Your task to perform on an android device: choose inbox layout in the gmail app Image 0: 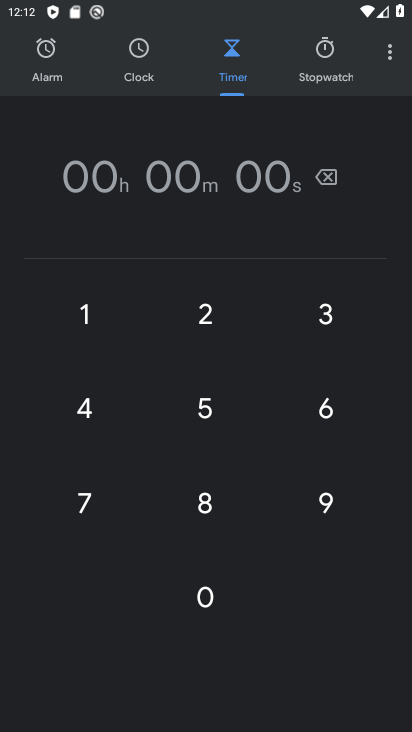
Step 0: press home button
Your task to perform on an android device: choose inbox layout in the gmail app Image 1: 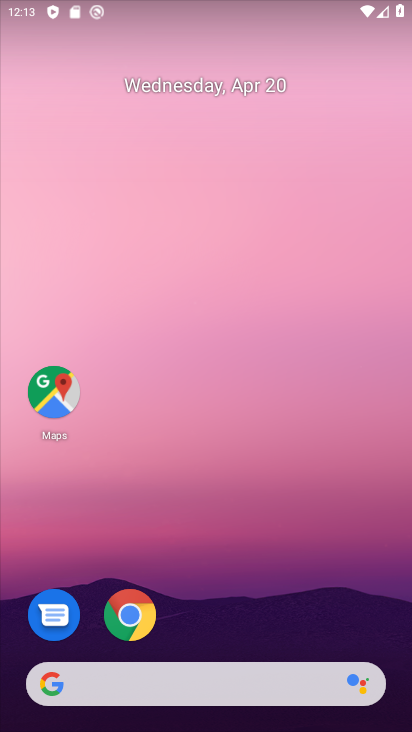
Step 1: drag from (235, 315) to (241, 84)
Your task to perform on an android device: choose inbox layout in the gmail app Image 2: 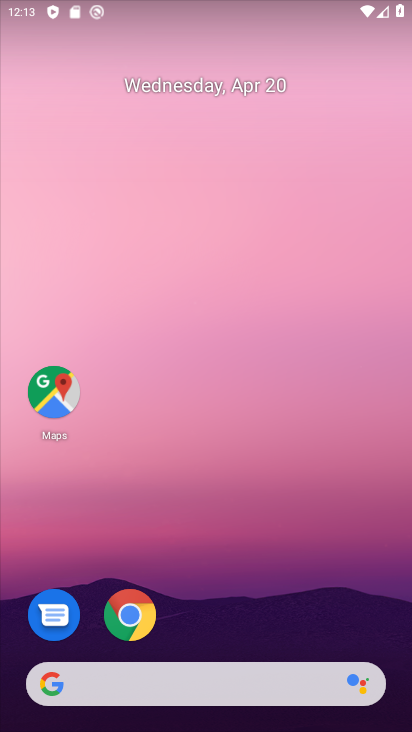
Step 2: drag from (215, 564) to (213, 61)
Your task to perform on an android device: choose inbox layout in the gmail app Image 3: 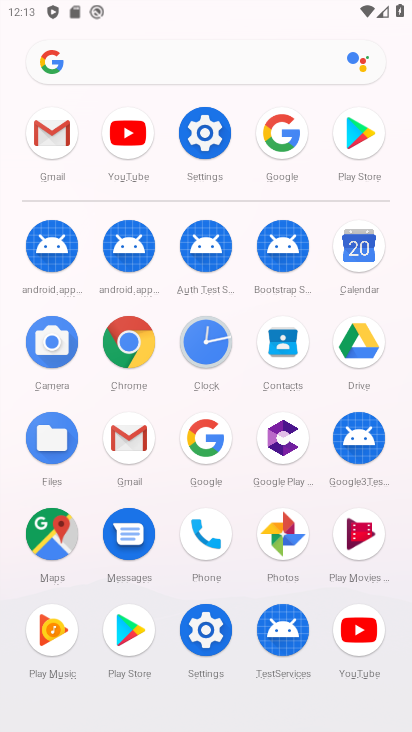
Step 3: click (56, 126)
Your task to perform on an android device: choose inbox layout in the gmail app Image 4: 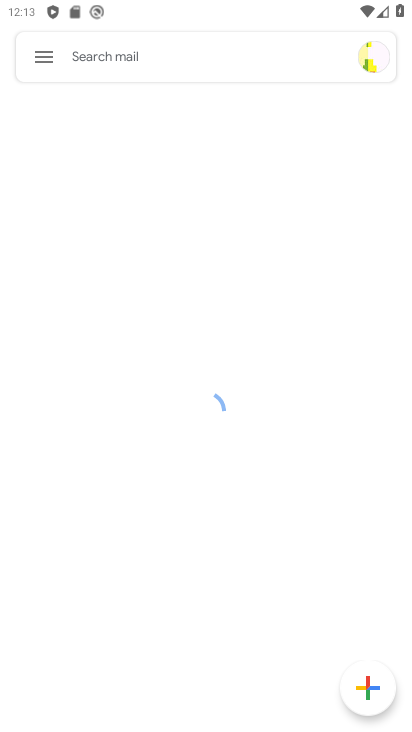
Step 4: click (41, 59)
Your task to perform on an android device: choose inbox layout in the gmail app Image 5: 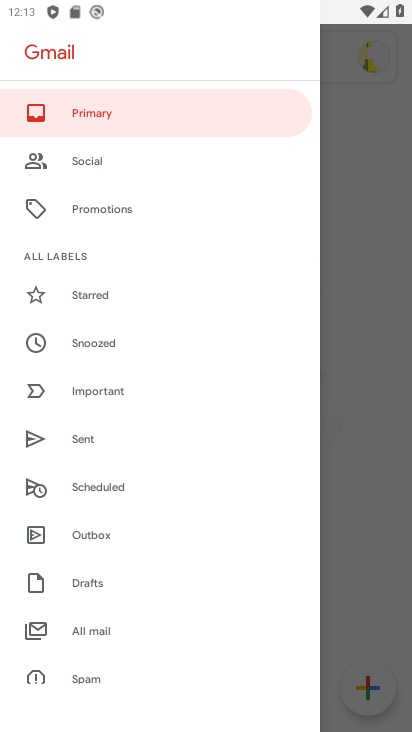
Step 5: drag from (112, 650) to (126, 306)
Your task to perform on an android device: choose inbox layout in the gmail app Image 6: 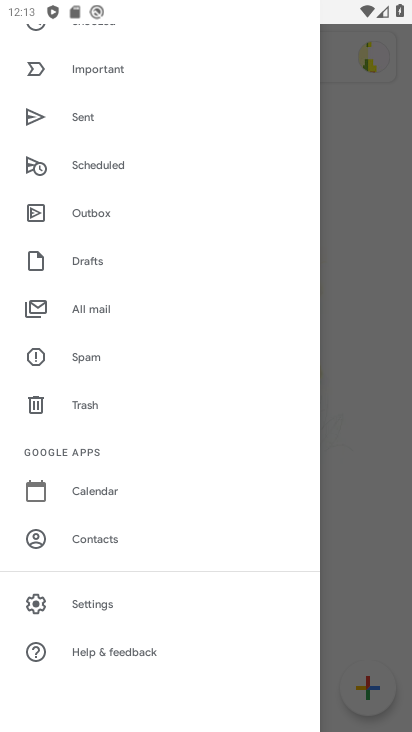
Step 6: click (72, 598)
Your task to perform on an android device: choose inbox layout in the gmail app Image 7: 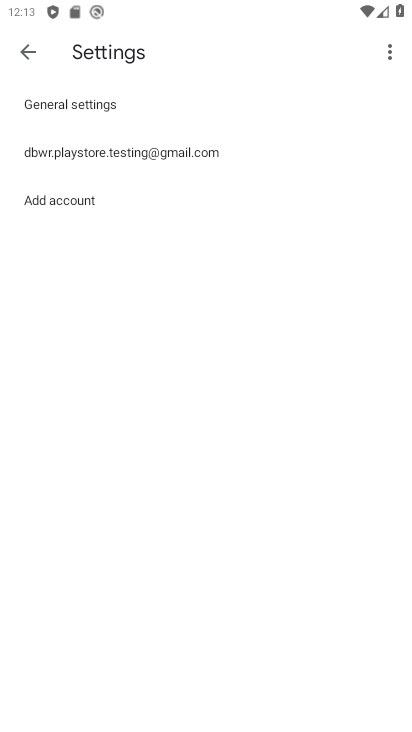
Step 7: click (108, 147)
Your task to perform on an android device: choose inbox layout in the gmail app Image 8: 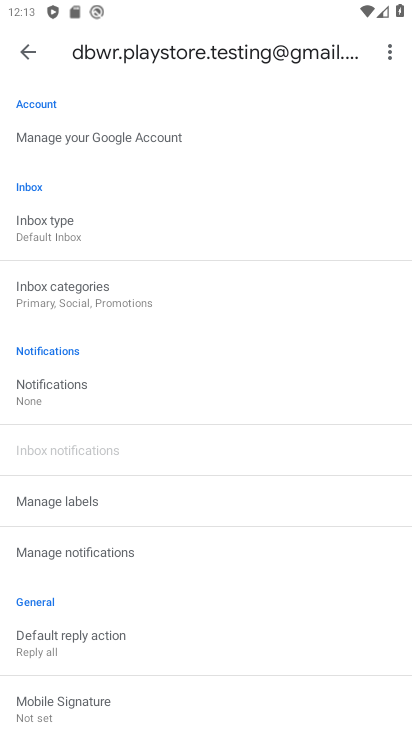
Step 8: click (50, 229)
Your task to perform on an android device: choose inbox layout in the gmail app Image 9: 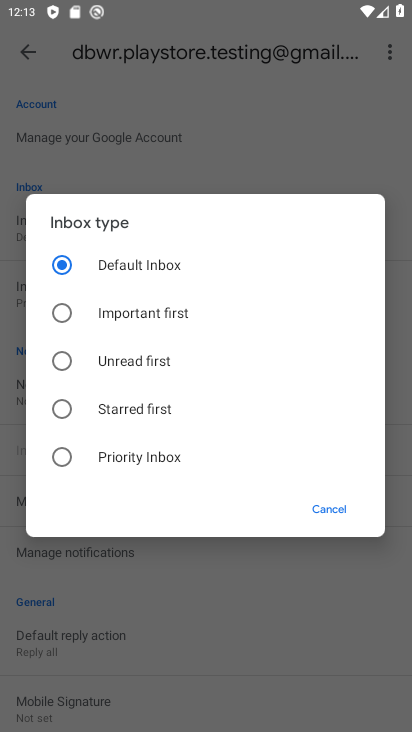
Step 9: click (62, 459)
Your task to perform on an android device: choose inbox layout in the gmail app Image 10: 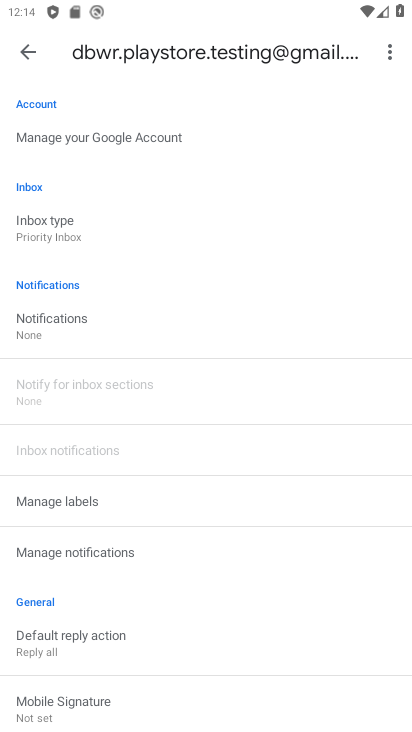
Step 10: task complete